Your task to perform on an android device: Go to sound settings Image 0: 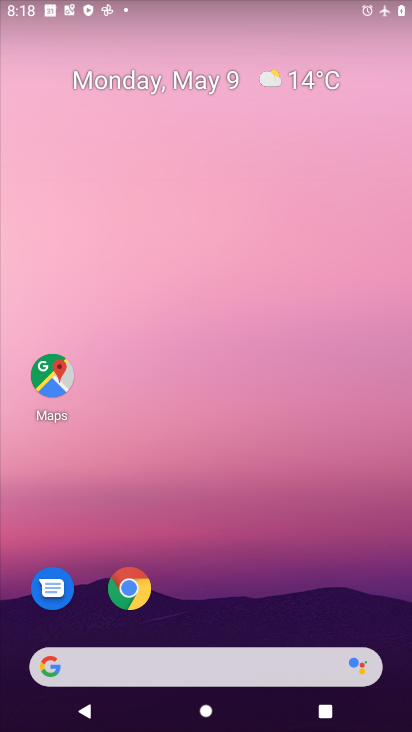
Step 0: drag from (347, 601) to (279, 35)
Your task to perform on an android device: Go to sound settings Image 1: 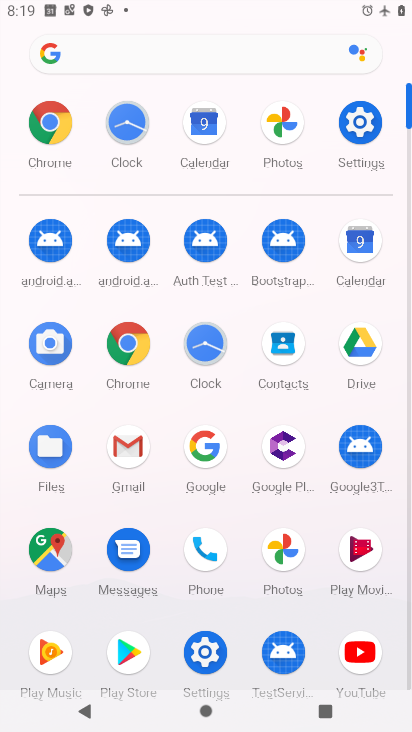
Step 1: click (211, 659)
Your task to perform on an android device: Go to sound settings Image 2: 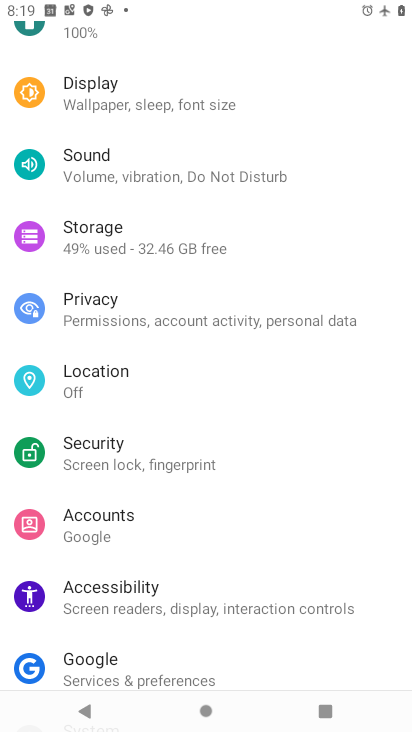
Step 2: click (116, 173)
Your task to perform on an android device: Go to sound settings Image 3: 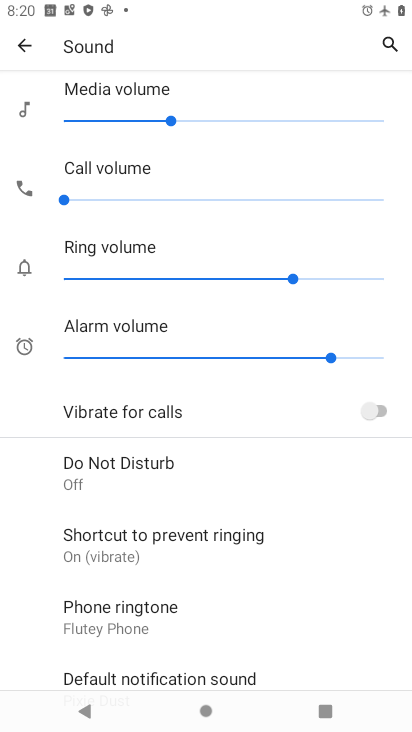
Step 3: task complete